Your task to perform on an android device: toggle wifi Image 0: 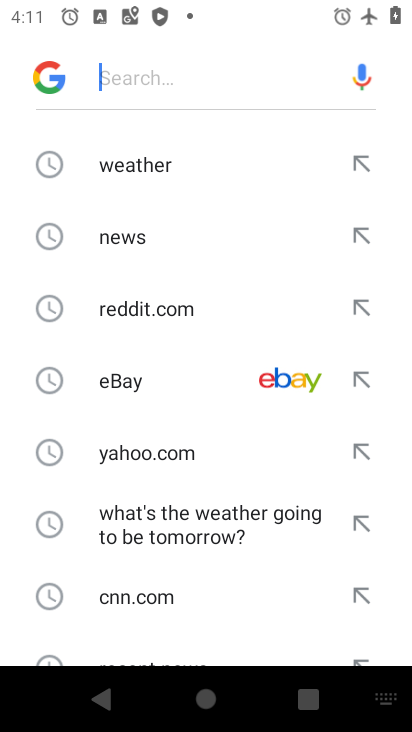
Step 0: press home button
Your task to perform on an android device: toggle wifi Image 1: 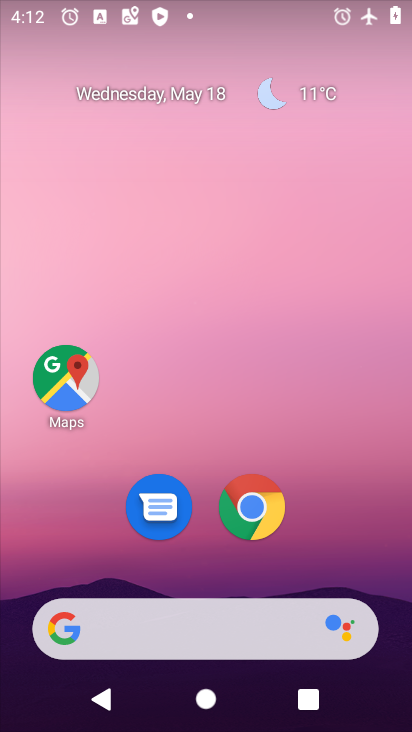
Step 1: drag from (397, 627) to (317, 120)
Your task to perform on an android device: toggle wifi Image 2: 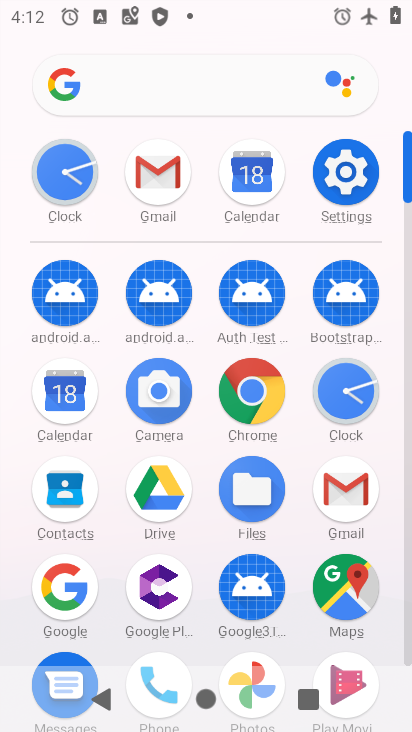
Step 2: click (407, 653)
Your task to perform on an android device: toggle wifi Image 3: 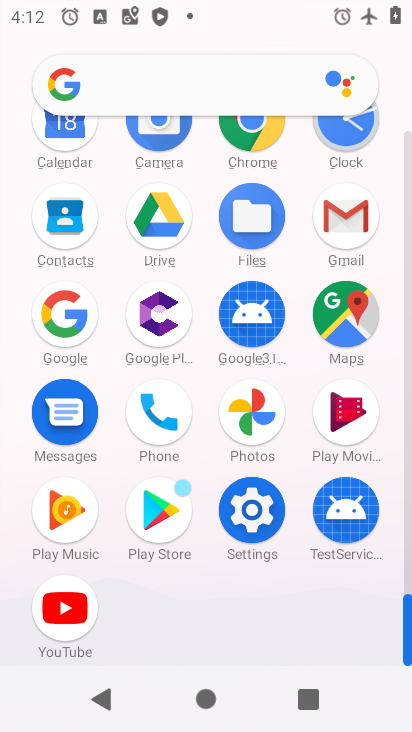
Step 3: click (254, 514)
Your task to perform on an android device: toggle wifi Image 4: 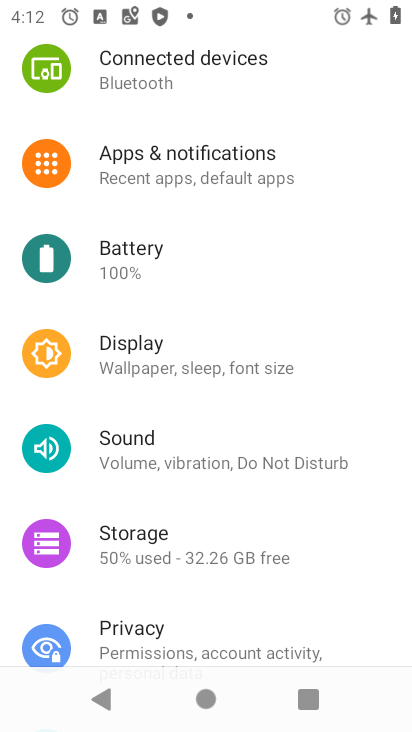
Step 4: drag from (340, 253) to (325, 527)
Your task to perform on an android device: toggle wifi Image 5: 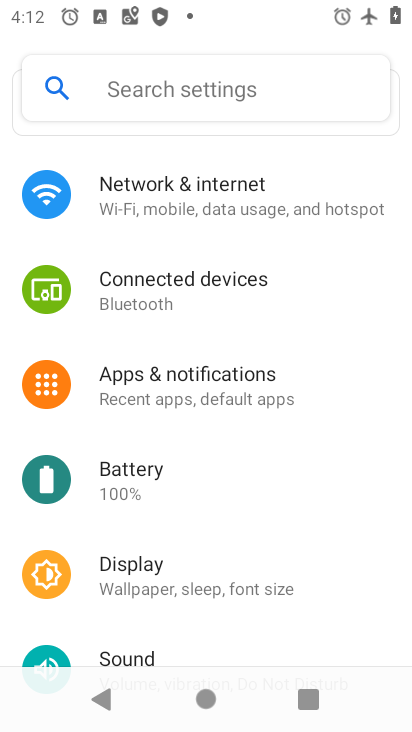
Step 5: click (146, 189)
Your task to perform on an android device: toggle wifi Image 6: 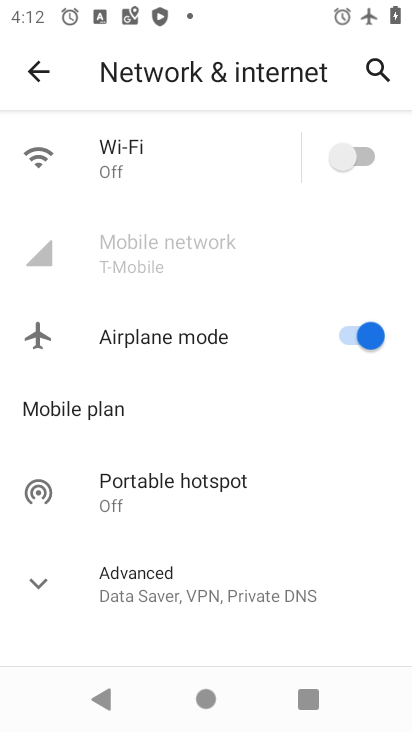
Step 6: click (370, 155)
Your task to perform on an android device: toggle wifi Image 7: 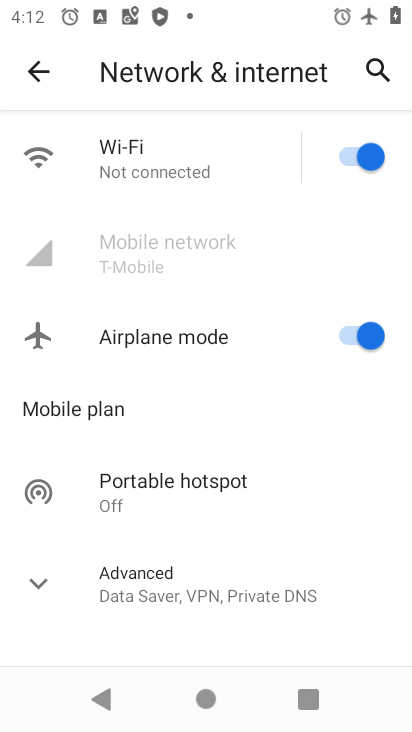
Step 7: task complete